Your task to perform on an android device: Open Wikipedia Image 0: 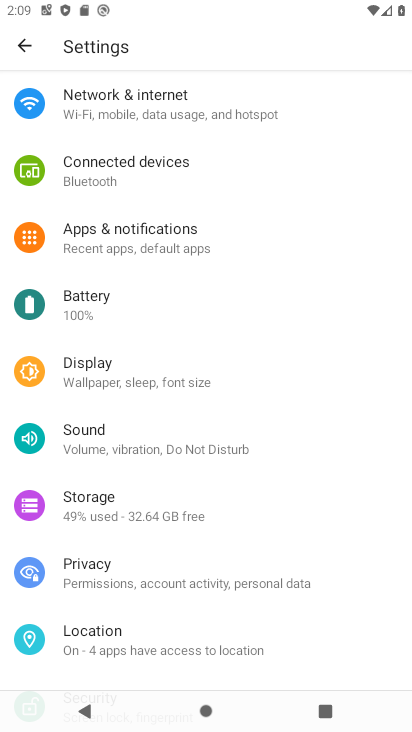
Step 0: press home button
Your task to perform on an android device: Open Wikipedia Image 1: 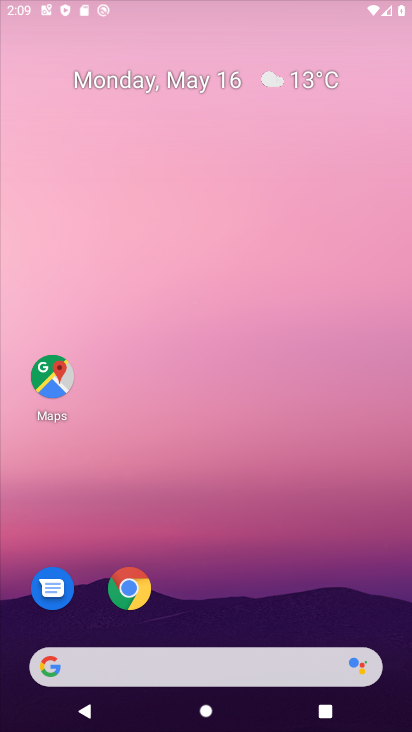
Step 1: drag from (166, 707) to (380, 111)
Your task to perform on an android device: Open Wikipedia Image 2: 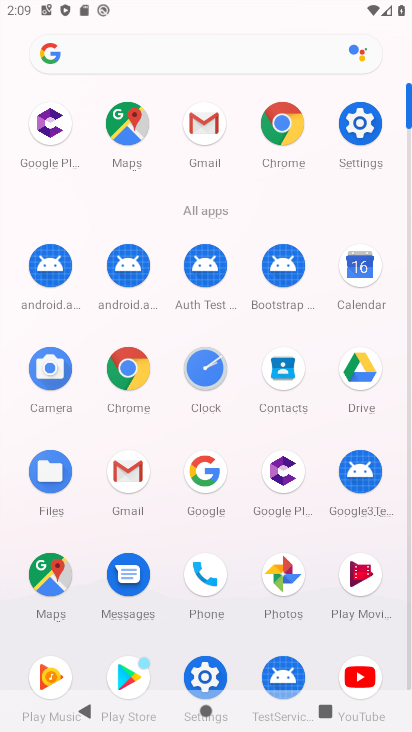
Step 2: click (132, 360)
Your task to perform on an android device: Open Wikipedia Image 3: 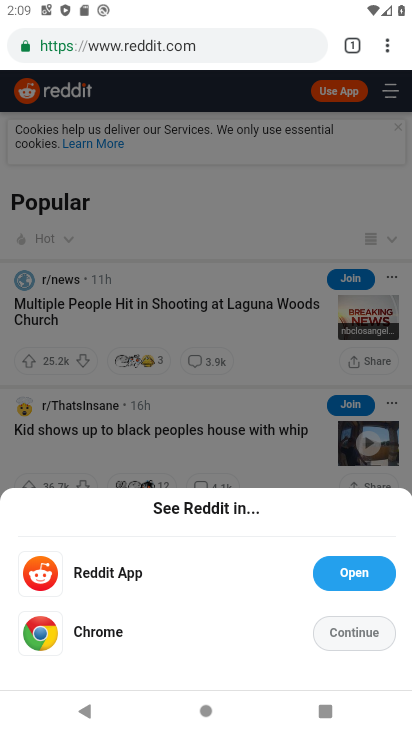
Step 3: click (240, 50)
Your task to perform on an android device: Open Wikipedia Image 4: 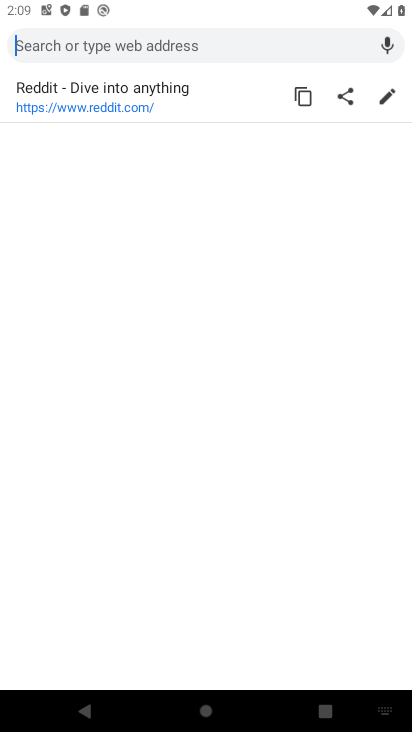
Step 4: type "wikipedia"
Your task to perform on an android device: Open Wikipedia Image 5: 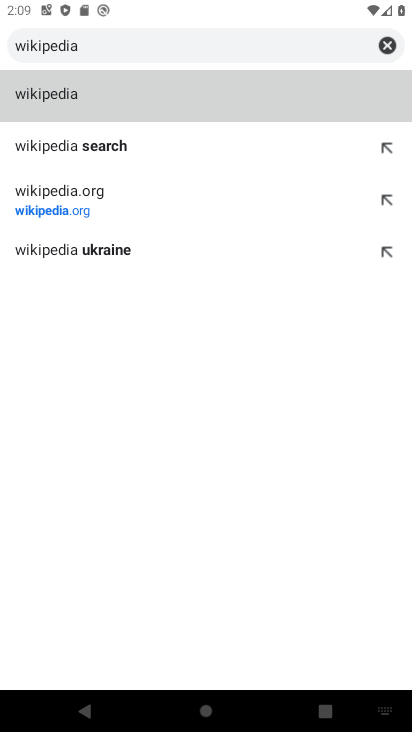
Step 5: click (290, 94)
Your task to perform on an android device: Open Wikipedia Image 6: 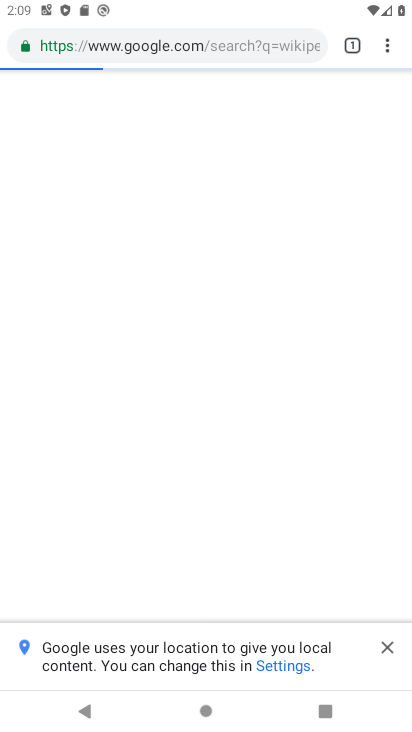
Step 6: task complete